Your task to perform on an android device: Open notification settings Image 0: 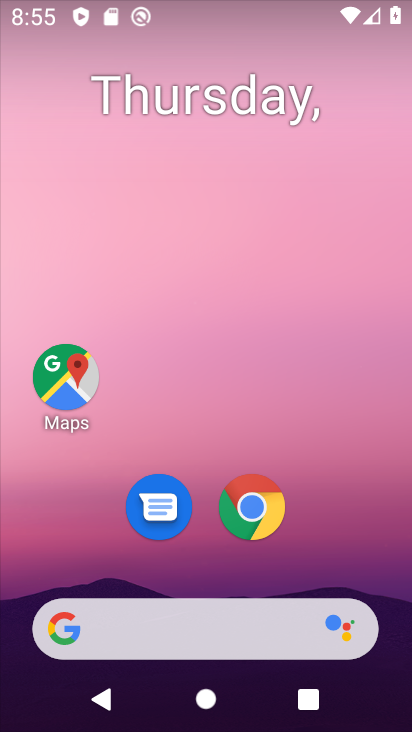
Step 0: drag from (249, 519) to (384, 9)
Your task to perform on an android device: Open notification settings Image 1: 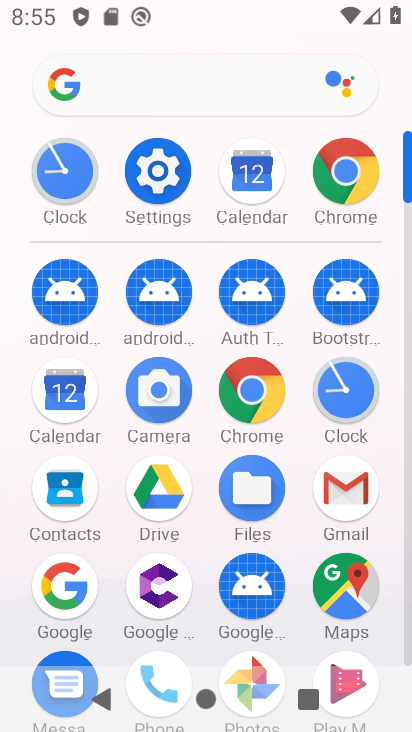
Step 1: click (169, 180)
Your task to perform on an android device: Open notification settings Image 2: 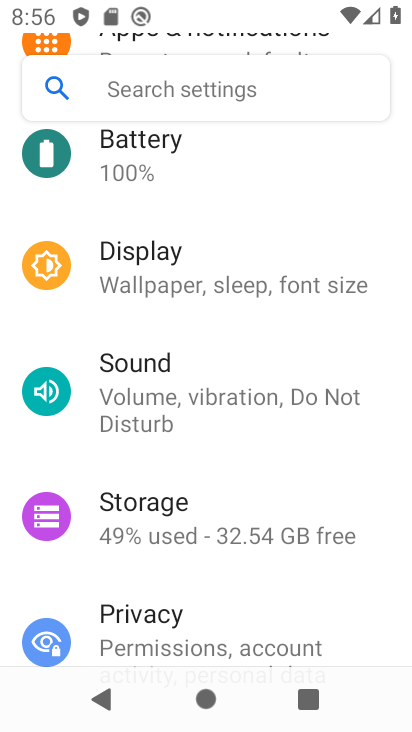
Step 2: drag from (181, 205) to (216, 636)
Your task to perform on an android device: Open notification settings Image 3: 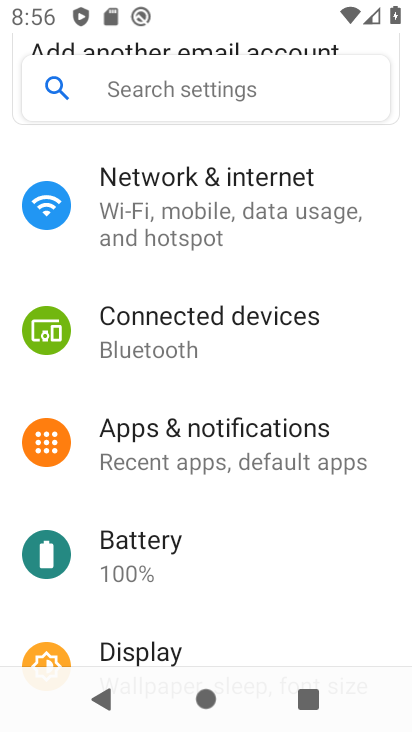
Step 3: click (185, 445)
Your task to perform on an android device: Open notification settings Image 4: 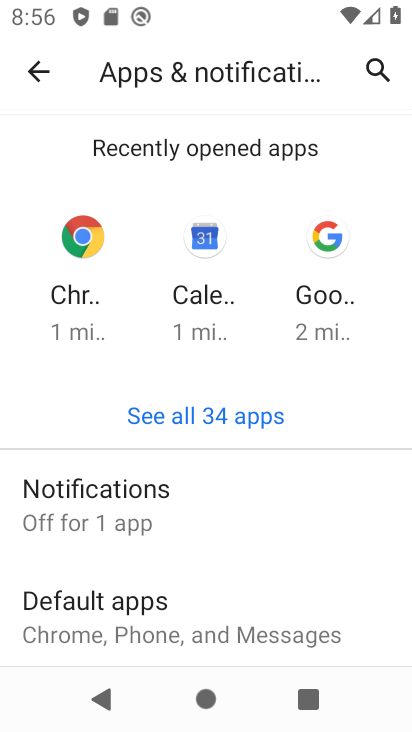
Step 4: drag from (172, 511) to (193, 350)
Your task to perform on an android device: Open notification settings Image 5: 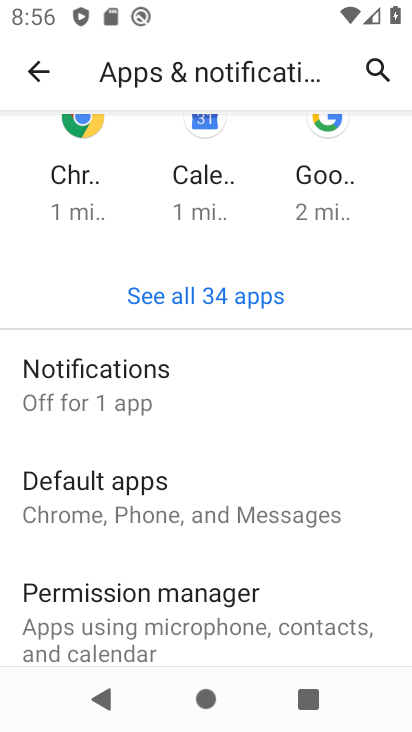
Step 5: click (137, 399)
Your task to perform on an android device: Open notification settings Image 6: 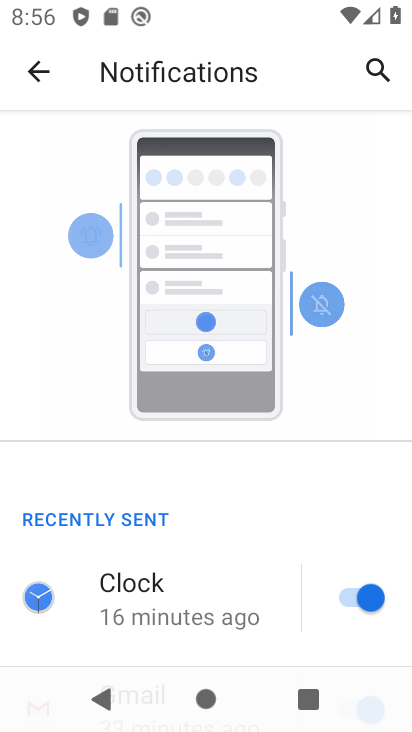
Step 6: task complete